Your task to perform on an android device: add a contact in the contacts app Image 0: 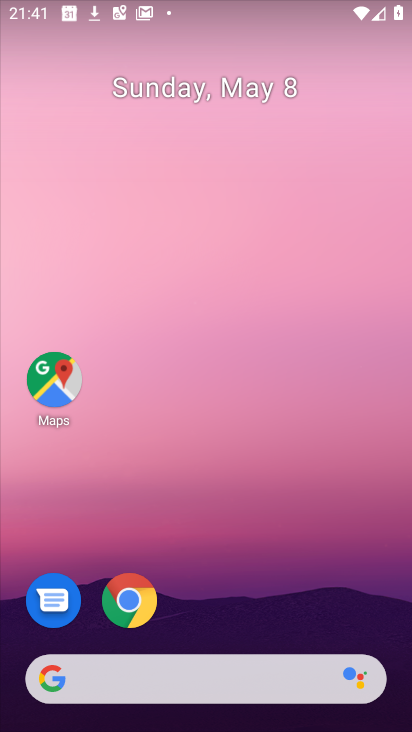
Step 0: drag from (302, 585) to (260, 189)
Your task to perform on an android device: add a contact in the contacts app Image 1: 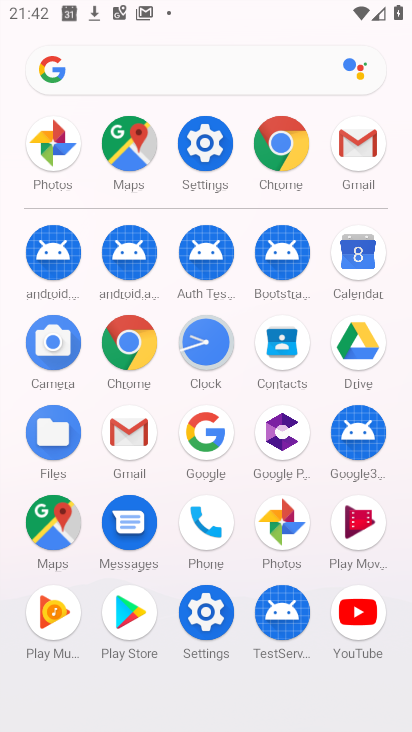
Step 1: click (200, 522)
Your task to perform on an android device: add a contact in the contacts app Image 2: 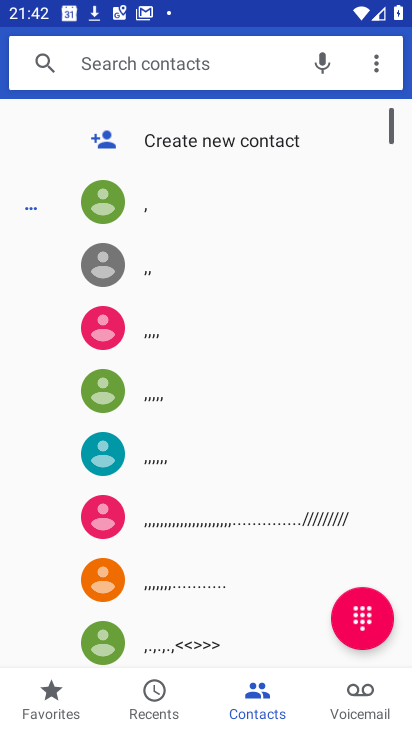
Step 2: click (212, 156)
Your task to perform on an android device: add a contact in the contacts app Image 3: 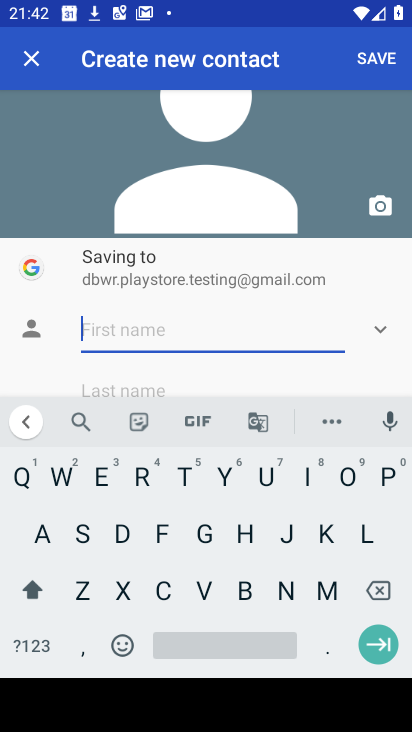
Step 3: click (280, 534)
Your task to perform on an android device: add a contact in the contacts app Image 4: 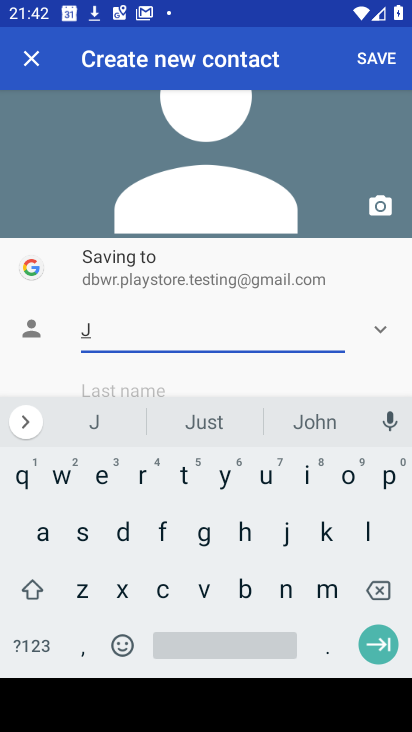
Step 4: click (99, 482)
Your task to perform on an android device: add a contact in the contacts app Image 5: 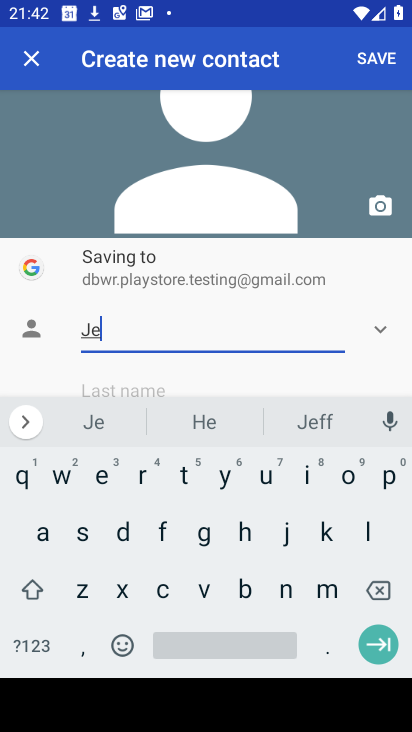
Step 5: click (100, 482)
Your task to perform on an android device: add a contact in the contacts app Image 6: 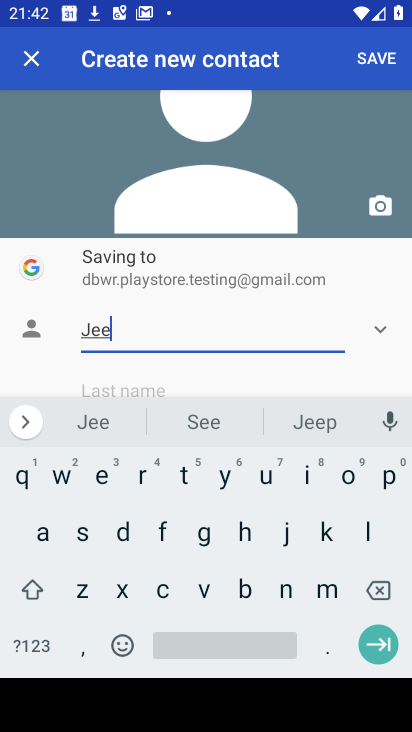
Step 6: click (180, 484)
Your task to perform on an android device: add a contact in the contacts app Image 7: 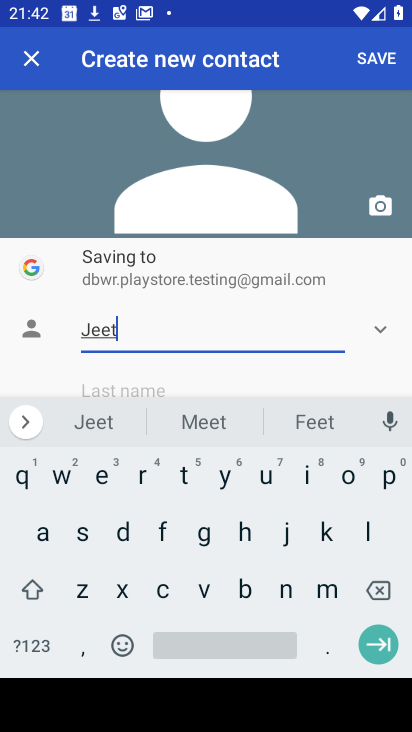
Step 7: drag from (219, 371) to (246, 278)
Your task to perform on an android device: add a contact in the contacts app Image 8: 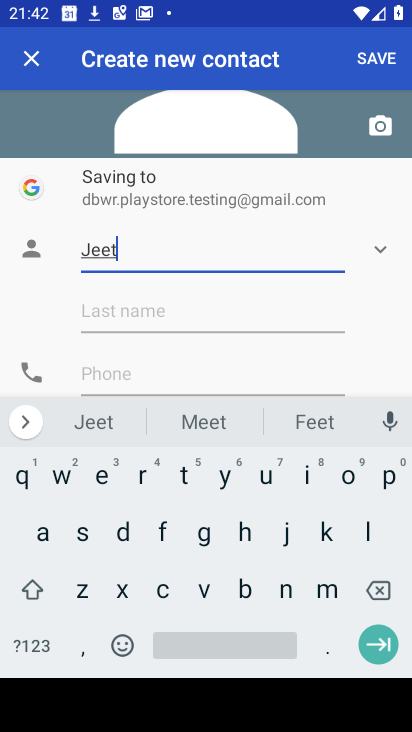
Step 8: click (130, 380)
Your task to perform on an android device: add a contact in the contacts app Image 9: 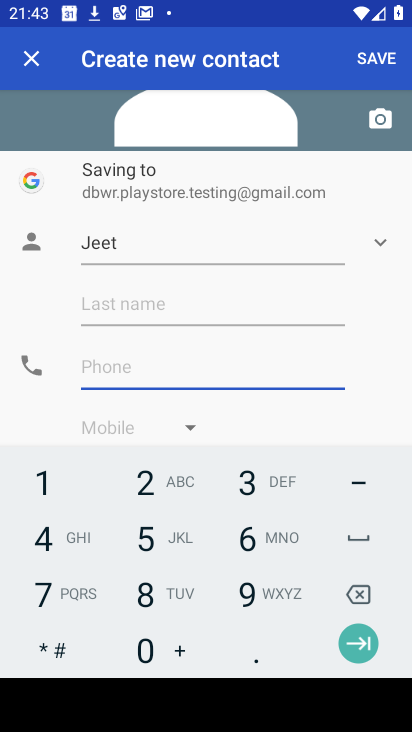
Step 9: click (260, 596)
Your task to perform on an android device: add a contact in the contacts app Image 10: 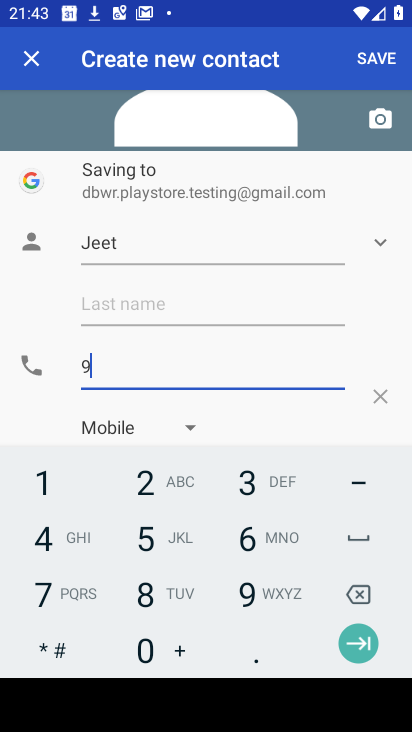
Step 10: click (148, 600)
Your task to perform on an android device: add a contact in the contacts app Image 11: 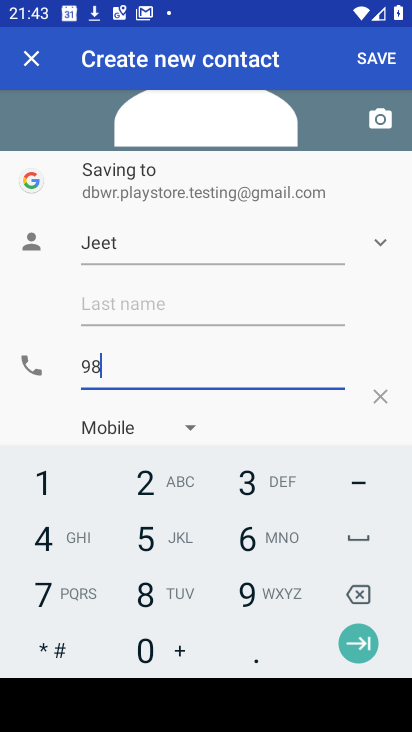
Step 11: click (154, 535)
Your task to perform on an android device: add a contact in the contacts app Image 12: 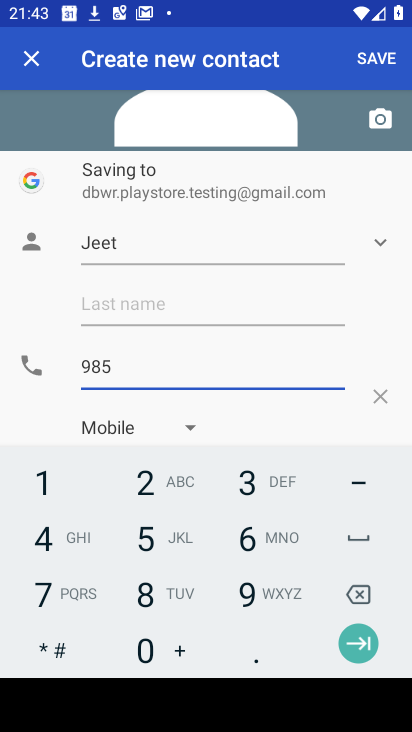
Step 12: click (231, 476)
Your task to perform on an android device: add a contact in the contacts app Image 13: 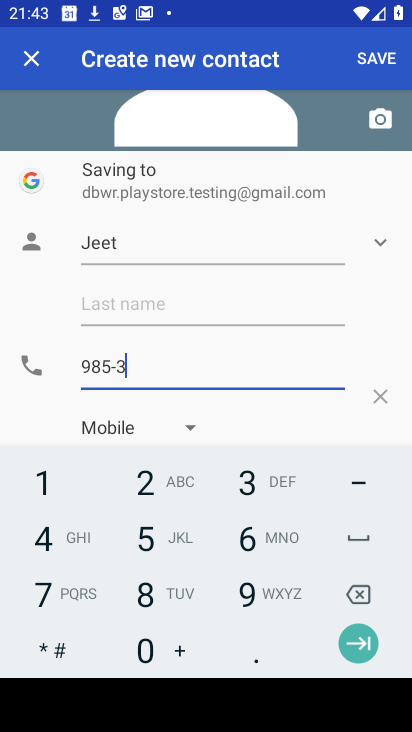
Step 13: click (58, 543)
Your task to perform on an android device: add a contact in the contacts app Image 14: 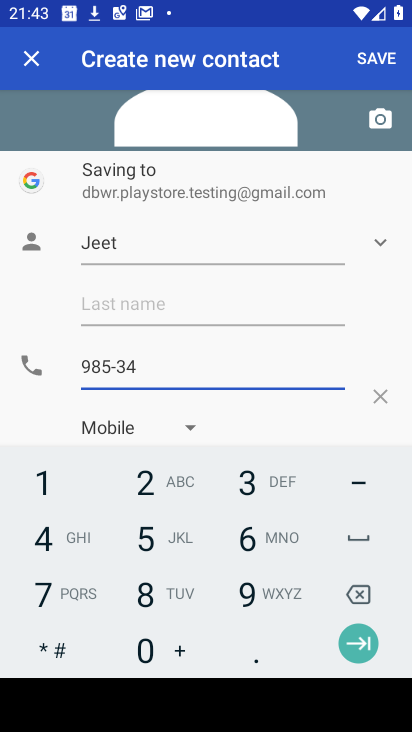
Step 14: click (168, 483)
Your task to perform on an android device: add a contact in the contacts app Image 15: 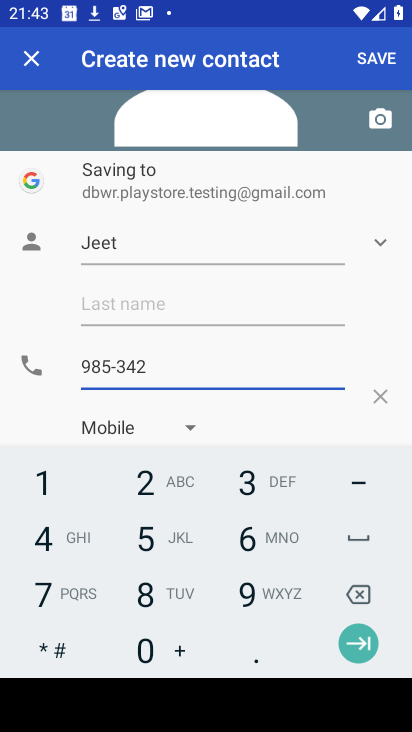
Step 15: click (166, 537)
Your task to perform on an android device: add a contact in the contacts app Image 16: 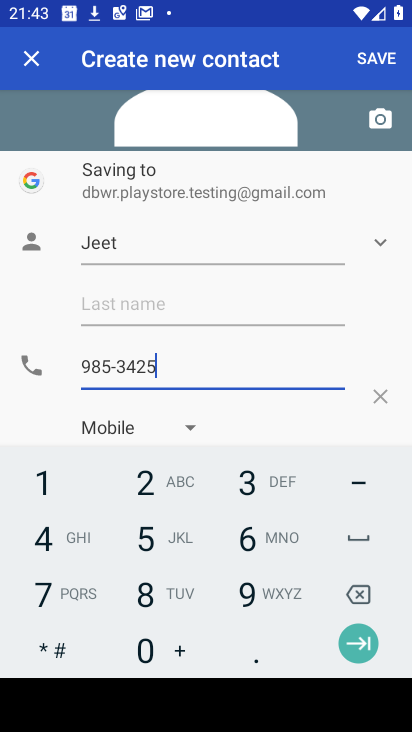
Step 16: click (262, 542)
Your task to perform on an android device: add a contact in the contacts app Image 17: 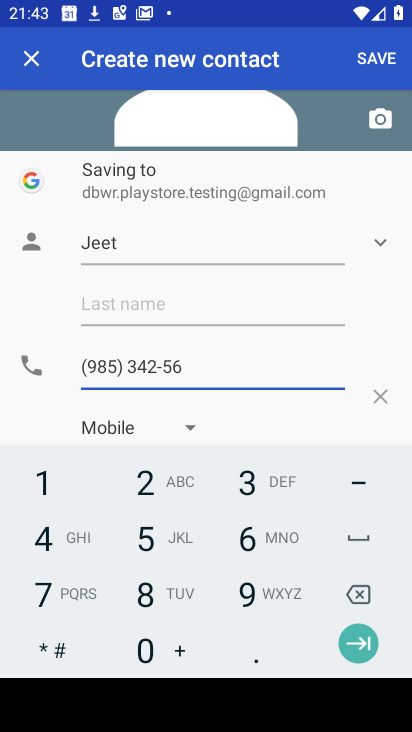
Step 17: click (169, 599)
Your task to perform on an android device: add a contact in the contacts app Image 18: 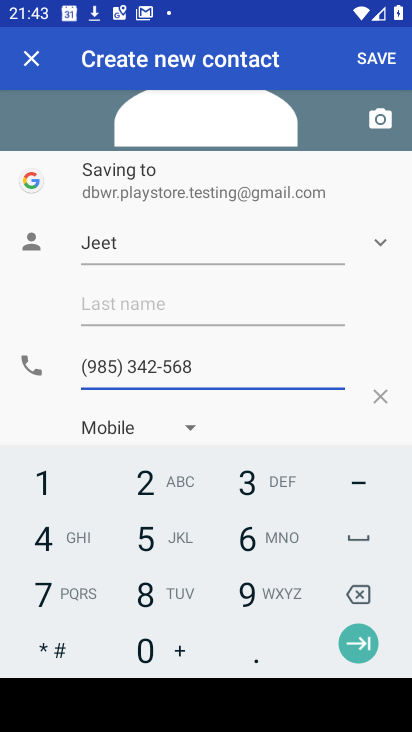
Step 18: click (144, 545)
Your task to perform on an android device: add a contact in the contacts app Image 19: 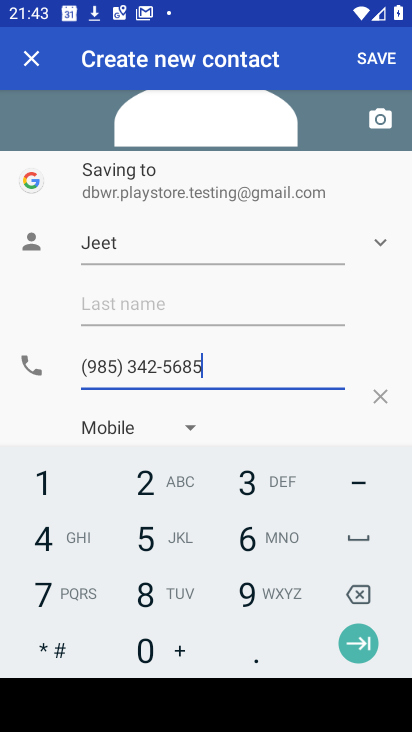
Step 19: click (356, 52)
Your task to perform on an android device: add a contact in the contacts app Image 20: 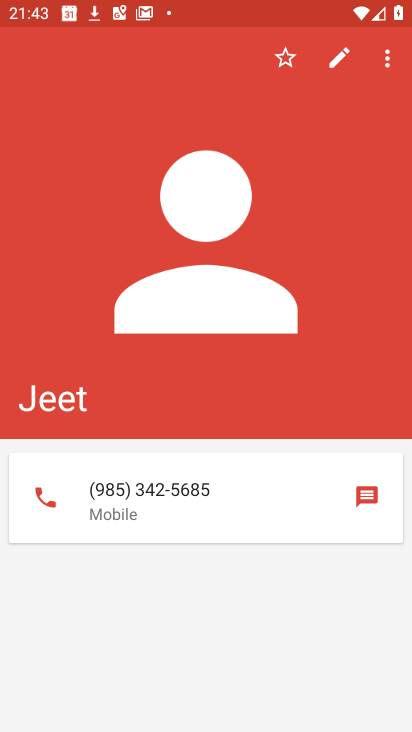
Step 20: task complete